Your task to perform on an android device: turn off javascript in the chrome app Image 0: 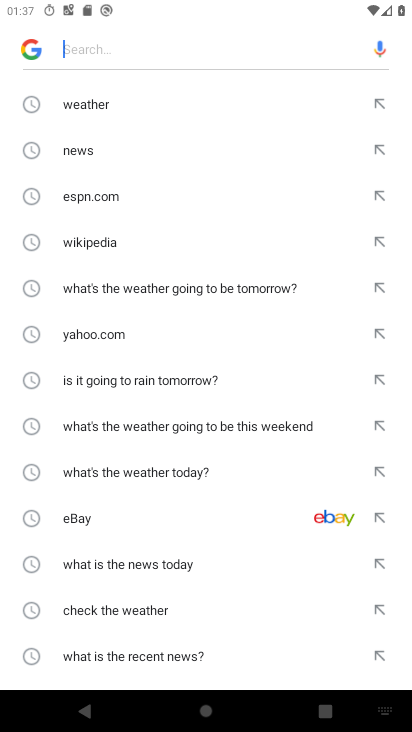
Step 0: press home button
Your task to perform on an android device: turn off javascript in the chrome app Image 1: 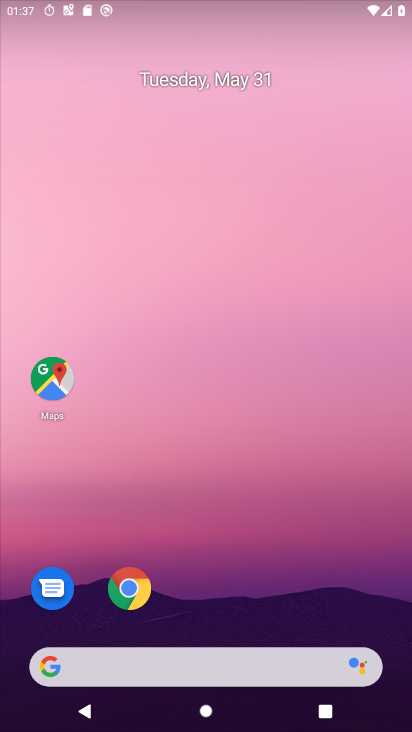
Step 1: drag from (186, 604) to (304, 0)
Your task to perform on an android device: turn off javascript in the chrome app Image 2: 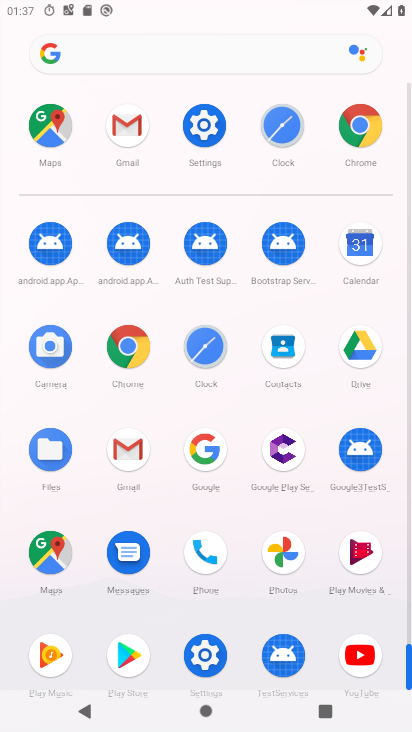
Step 2: click (112, 341)
Your task to perform on an android device: turn off javascript in the chrome app Image 3: 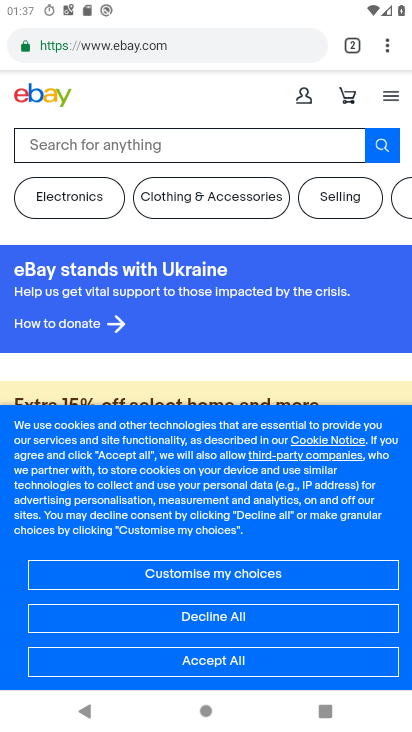
Step 3: drag from (379, 44) to (261, 547)
Your task to perform on an android device: turn off javascript in the chrome app Image 4: 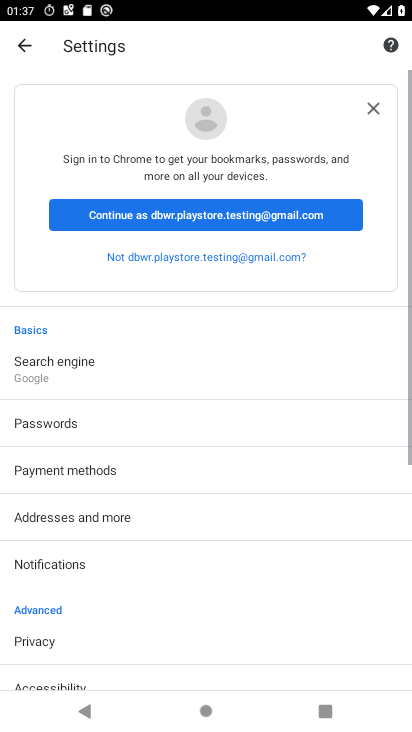
Step 4: drag from (77, 633) to (178, 69)
Your task to perform on an android device: turn off javascript in the chrome app Image 5: 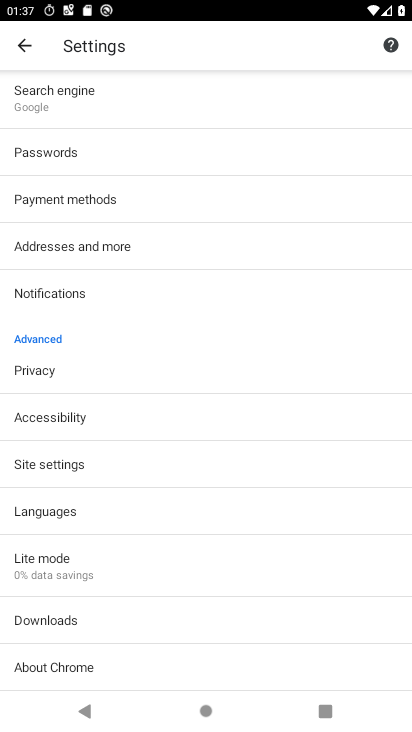
Step 5: click (104, 460)
Your task to perform on an android device: turn off javascript in the chrome app Image 6: 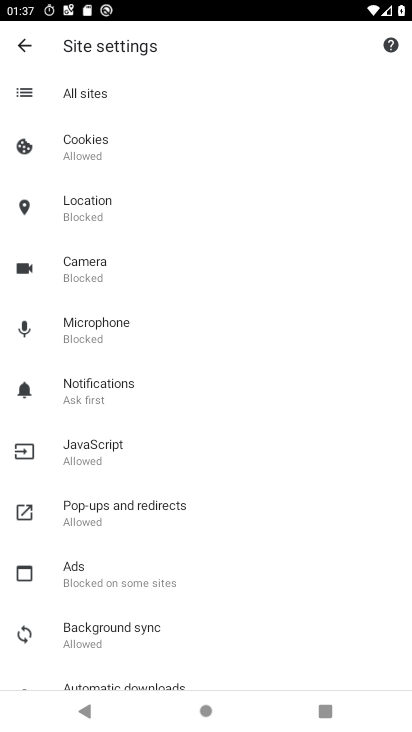
Step 6: click (160, 459)
Your task to perform on an android device: turn off javascript in the chrome app Image 7: 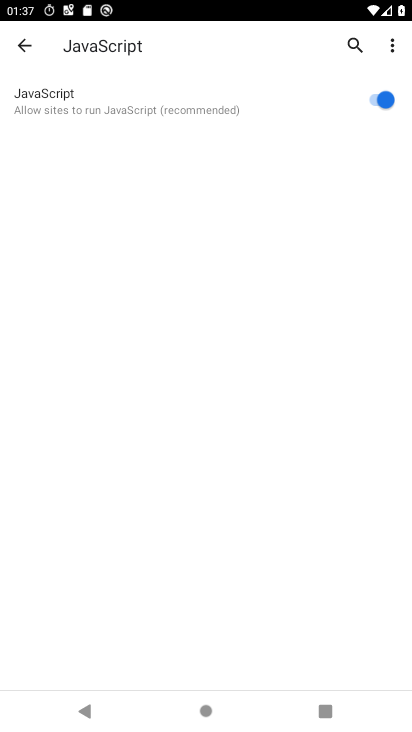
Step 7: task complete